Your task to perform on an android device: Google the capital of Mexico Image 0: 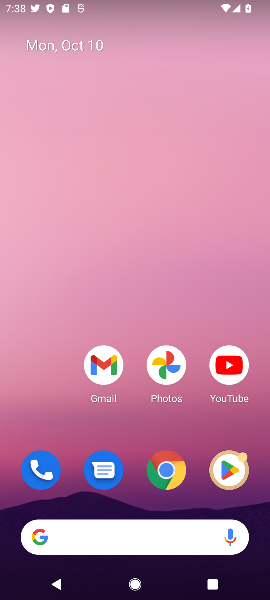
Step 0: click (166, 466)
Your task to perform on an android device: Google the capital of Mexico Image 1: 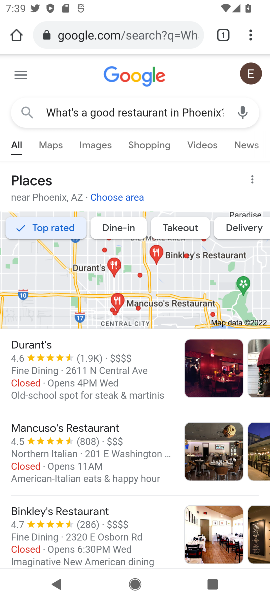
Step 1: click (138, 32)
Your task to perform on an android device: Google the capital of Mexico Image 2: 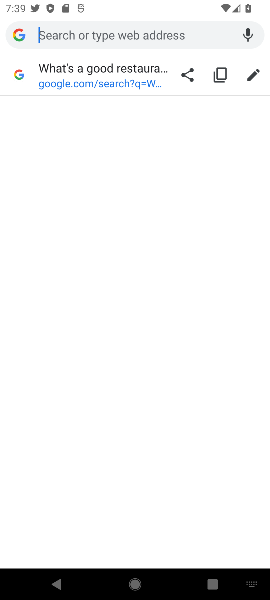
Step 2: type "Google the capital of Mexico"
Your task to perform on an android device: Google the capital of Mexico Image 3: 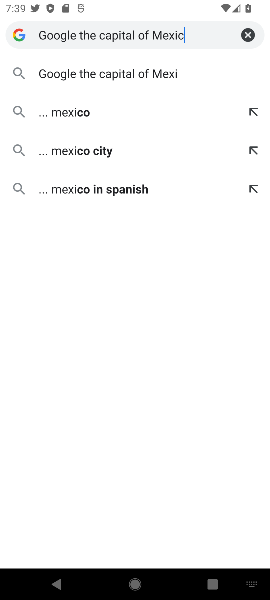
Step 3: type ""
Your task to perform on an android device: Google the capital of Mexico Image 4: 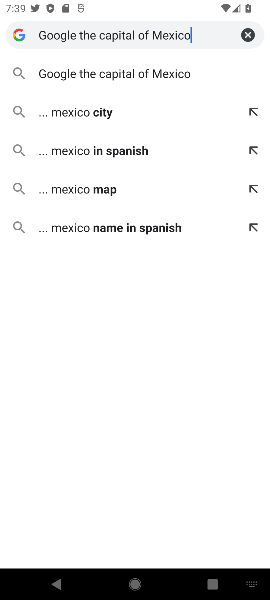
Step 4: click (99, 66)
Your task to perform on an android device: Google the capital of Mexico Image 5: 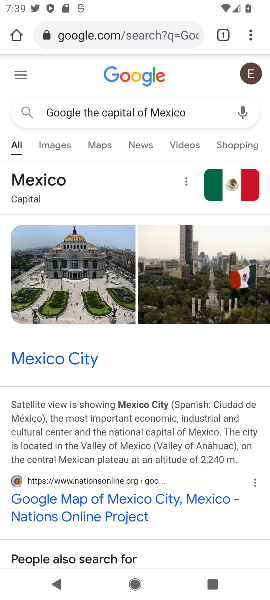
Step 5: task complete